Your task to perform on an android device: change text size in settings app Image 0: 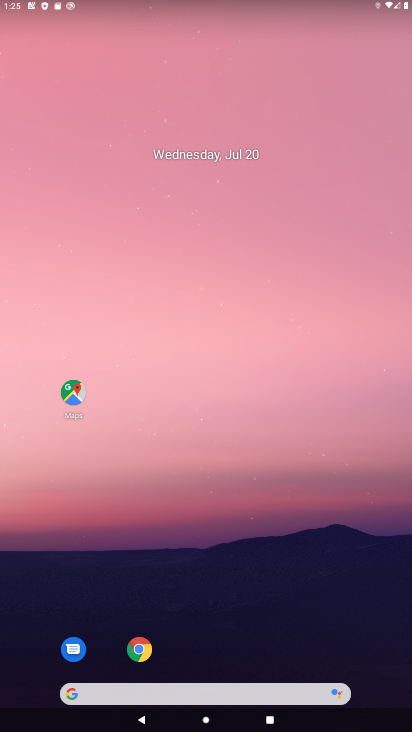
Step 0: drag from (325, 618) to (328, 111)
Your task to perform on an android device: change text size in settings app Image 1: 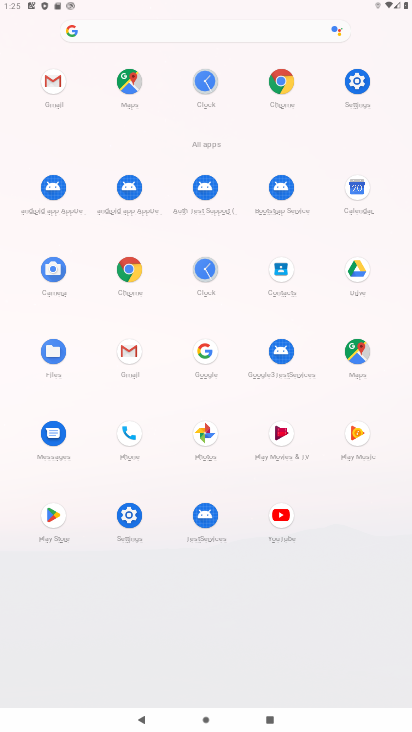
Step 1: click (119, 538)
Your task to perform on an android device: change text size in settings app Image 2: 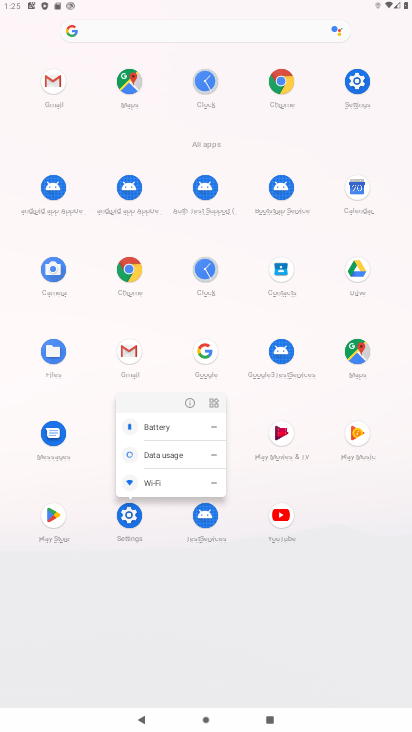
Step 2: click (119, 538)
Your task to perform on an android device: change text size in settings app Image 3: 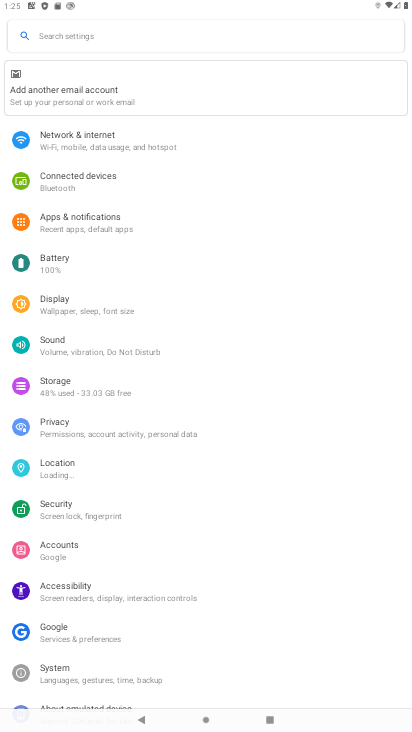
Step 3: click (59, 291)
Your task to perform on an android device: change text size in settings app Image 4: 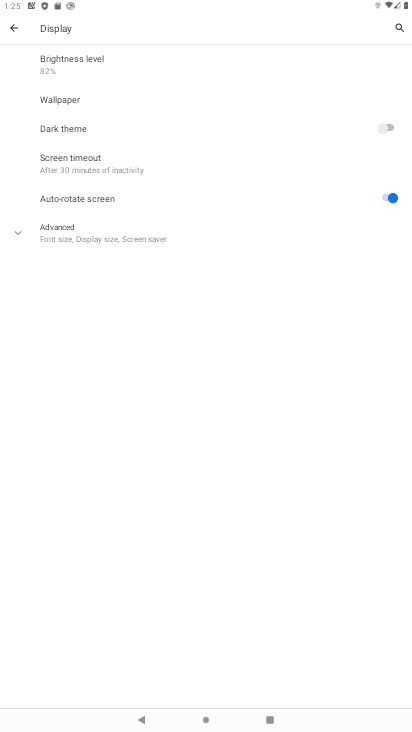
Step 4: click (99, 239)
Your task to perform on an android device: change text size in settings app Image 5: 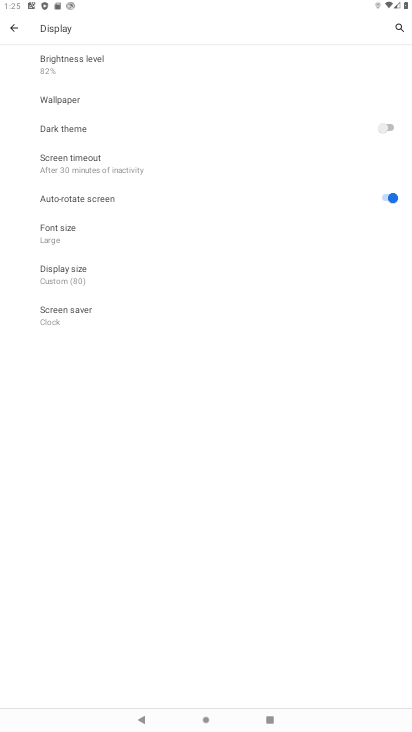
Step 5: click (99, 239)
Your task to perform on an android device: change text size in settings app Image 6: 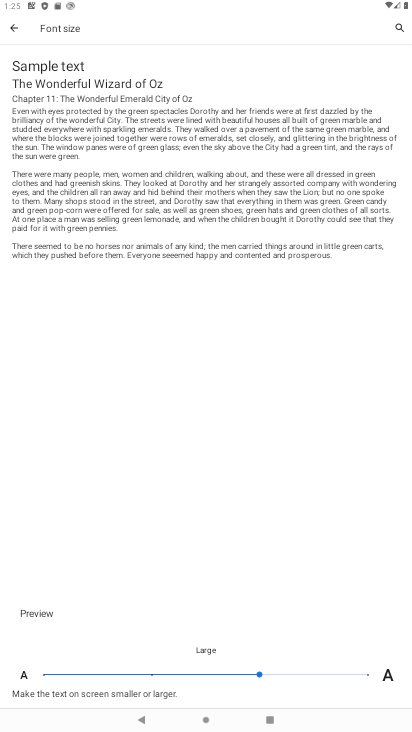
Step 6: click (384, 665)
Your task to perform on an android device: change text size in settings app Image 7: 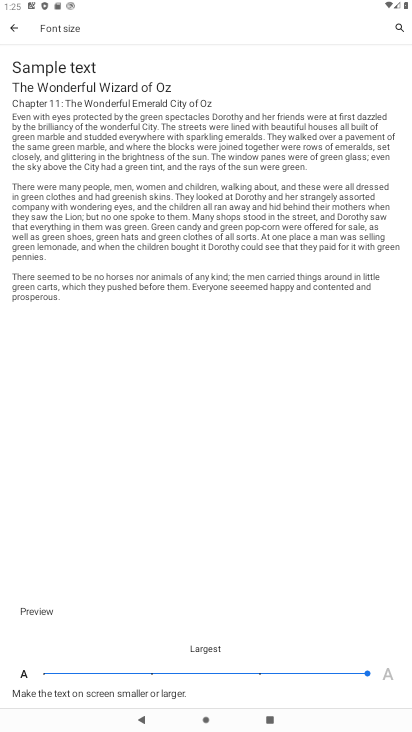
Step 7: task complete